Your task to perform on an android device: turn off smart reply in the gmail app Image 0: 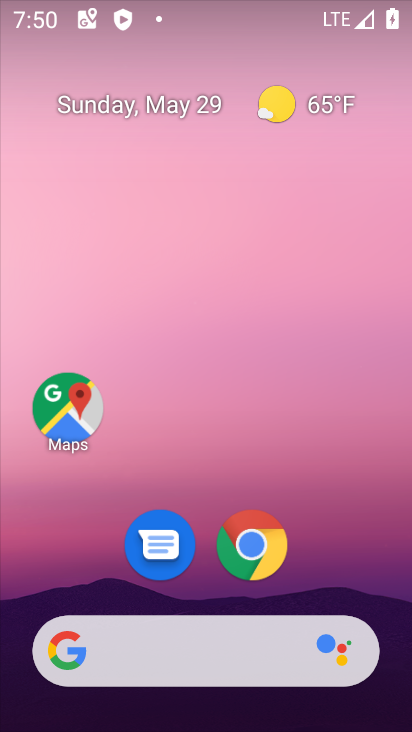
Step 0: drag from (221, 429) to (311, 63)
Your task to perform on an android device: turn off smart reply in the gmail app Image 1: 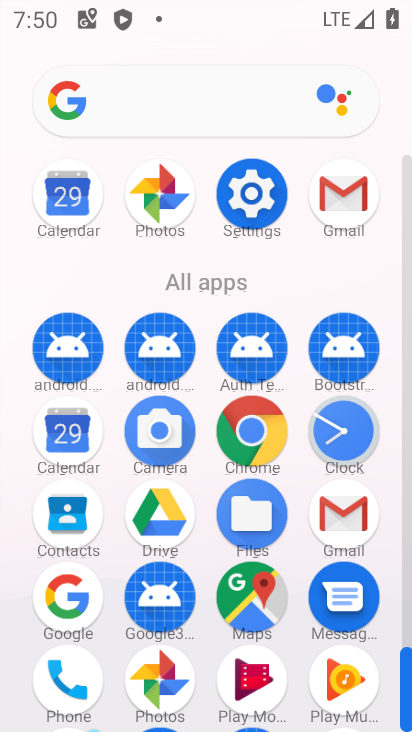
Step 1: click (363, 186)
Your task to perform on an android device: turn off smart reply in the gmail app Image 2: 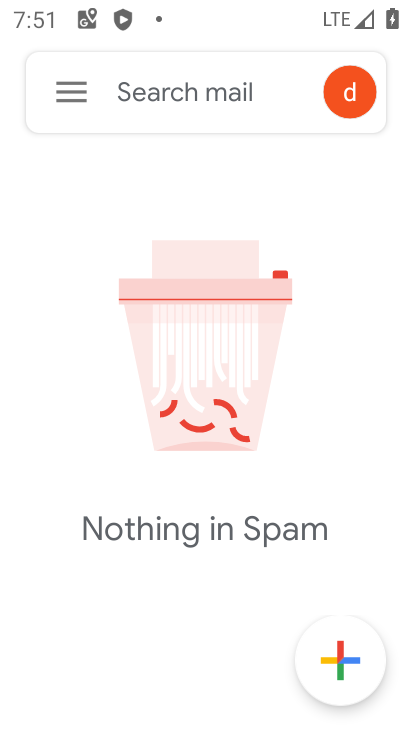
Step 2: click (64, 87)
Your task to perform on an android device: turn off smart reply in the gmail app Image 3: 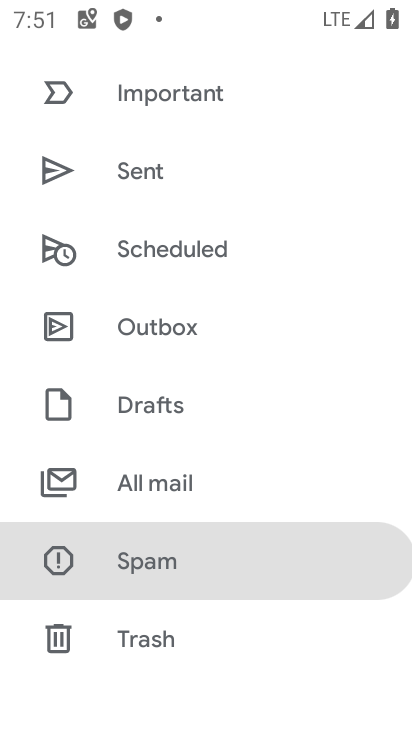
Step 3: drag from (150, 581) to (248, 202)
Your task to perform on an android device: turn off smart reply in the gmail app Image 4: 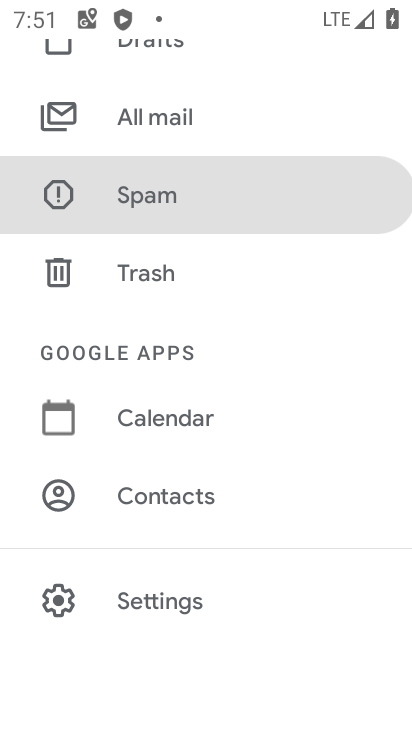
Step 4: click (157, 603)
Your task to perform on an android device: turn off smart reply in the gmail app Image 5: 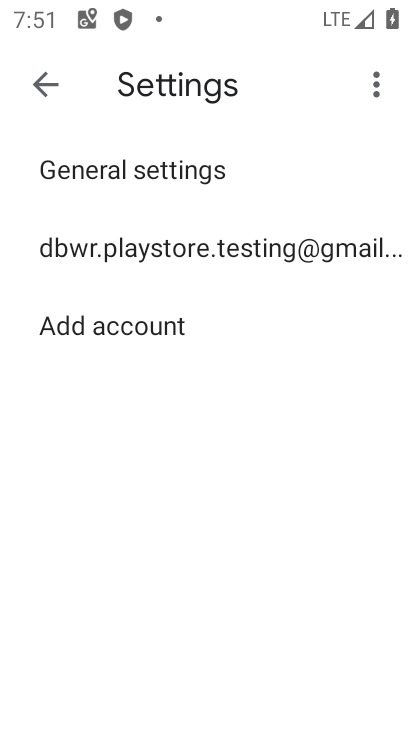
Step 5: click (217, 258)
Your task to perform on an android device: turn off smart reply in the gmail app Image 6: 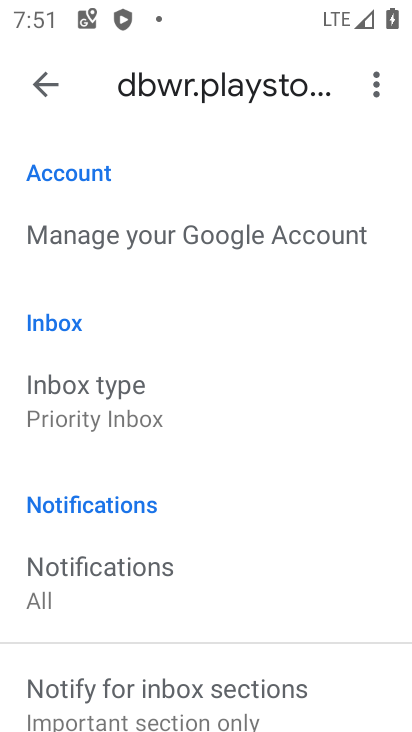
Step 6: drag from (287, 420) to (382, 249)
Your task to perform on an android device: turn off smart reply in the gmail app Image 7: 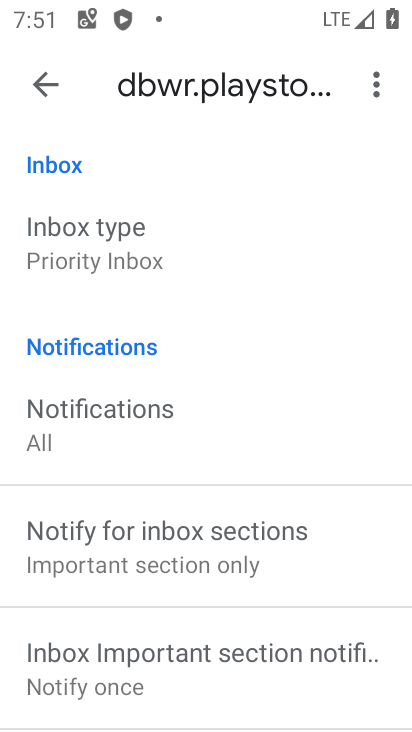
Step 7: drag from (138, 646) to (301, 345)
Your task to perform on an android device: turn off smart reply in the gmail app Image 8: 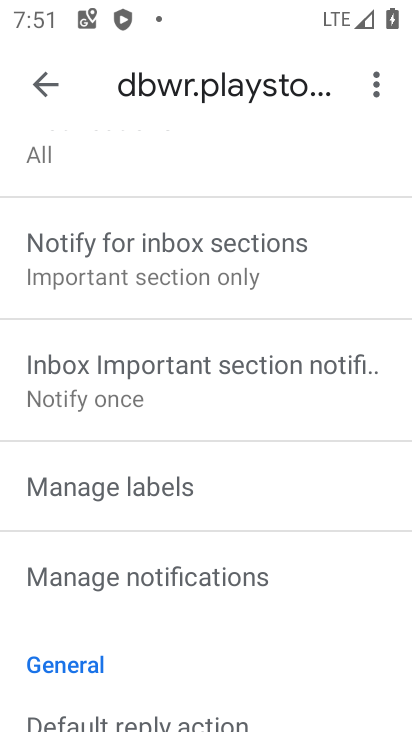
Step 8: drag from (121, 588) to (265, 308)
Your task to perform on an android device: turn off smart reply in the gmail app Image 9: 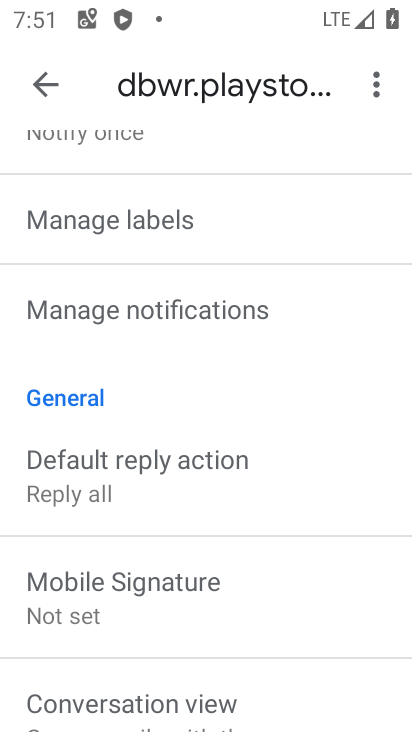
Step 9: drag from (140, 640) to (265, 334)
Your task to perform on an android device: turn off smart reply in the gmail app Image 10: 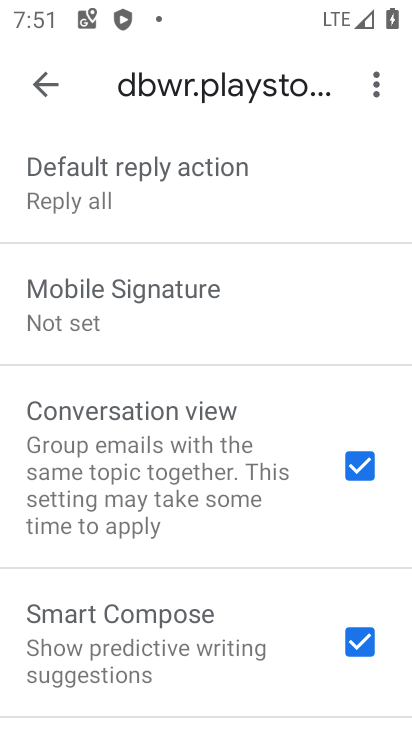
Step 10: drag from (95, 680) to (240, 371)
Your task to perform on an android device: turn off smart reply in the gmail app Image 11: 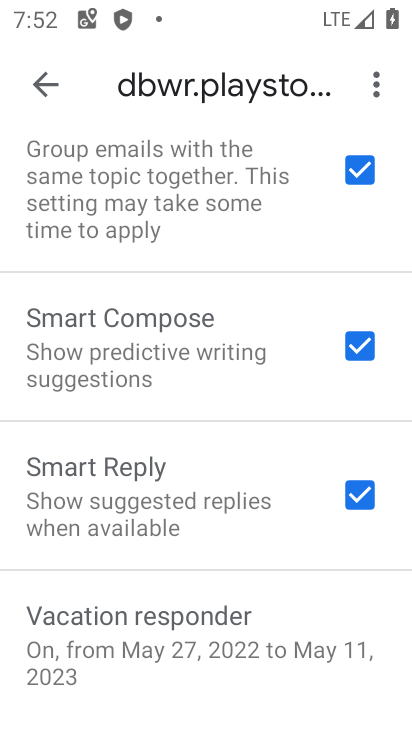
Step 11: click (363, 495)
Your task to perform on an android device: turn off smart reply in the gmail app Image 12: 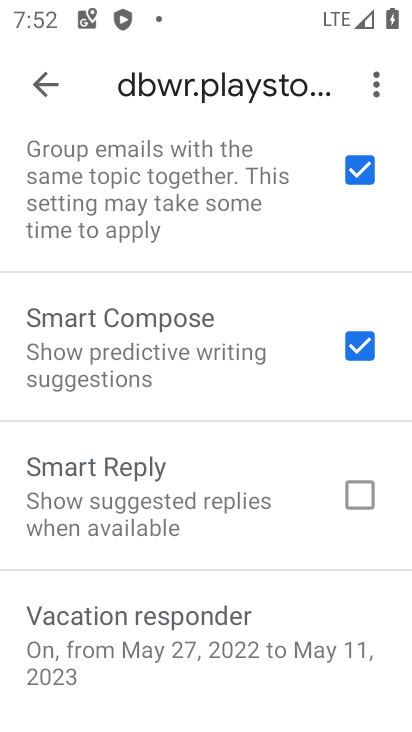
Step 12: task complete